Your task to perform on an android device: remove spam from my inbox in the gmail app Image 0: 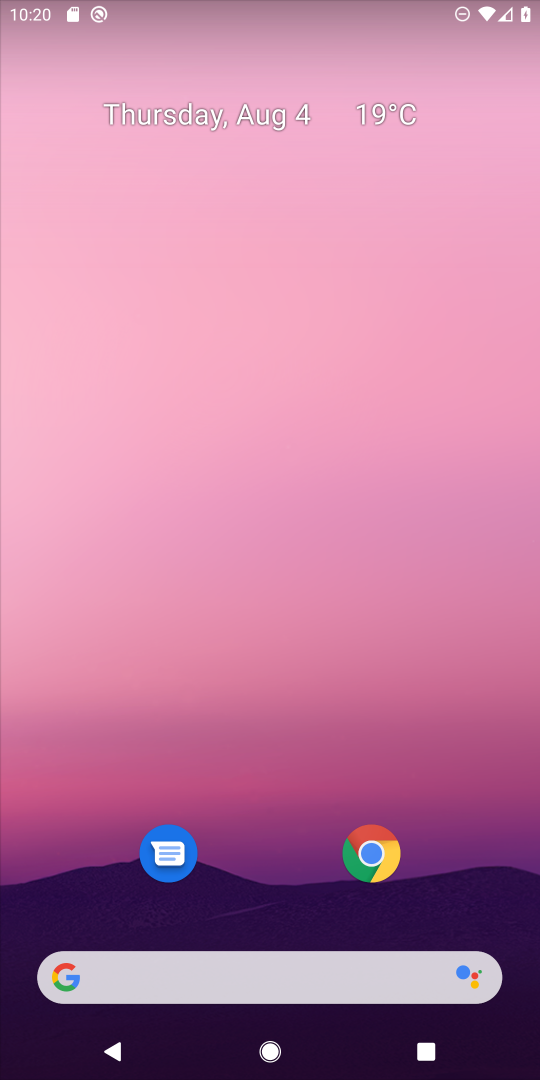
Step 0: drag from (243, 767) to (285, 0)
Your task to perform on an android device: remove spam from my inbox in the gmail app Image 1: 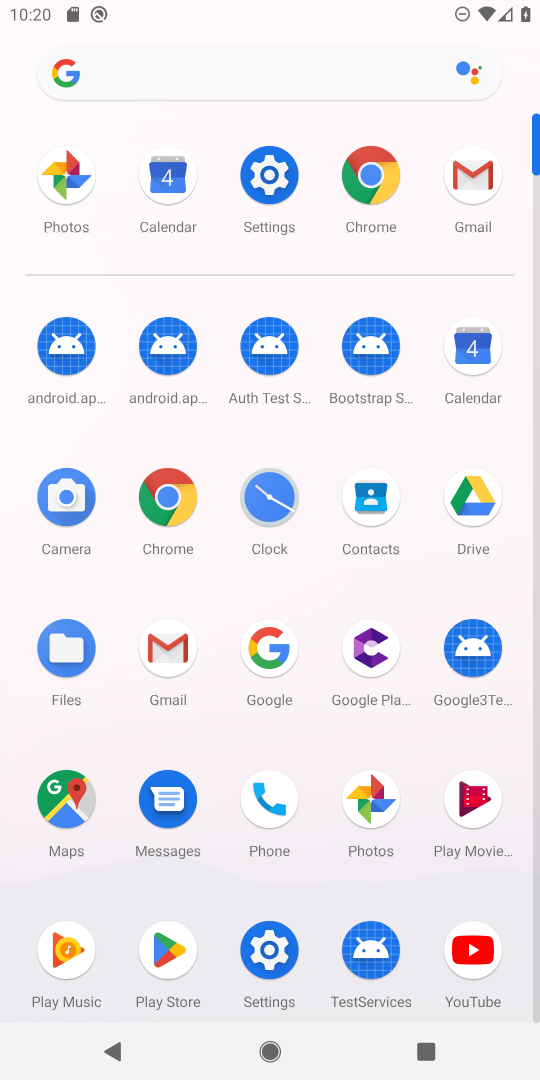
Step 1: click (164, 663)
Your task to perform on an android device: remove spam from my inbox in the gmail app Image 2: 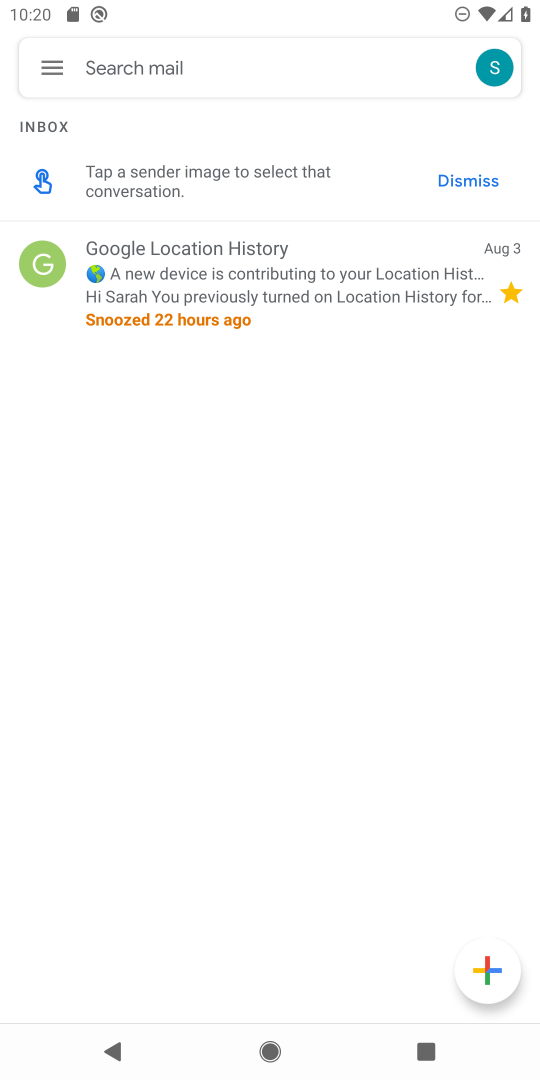
Step 2: click (39, 73)
Your task to perform on an android device: remove spam from my inbox in the gmail app Image 3: 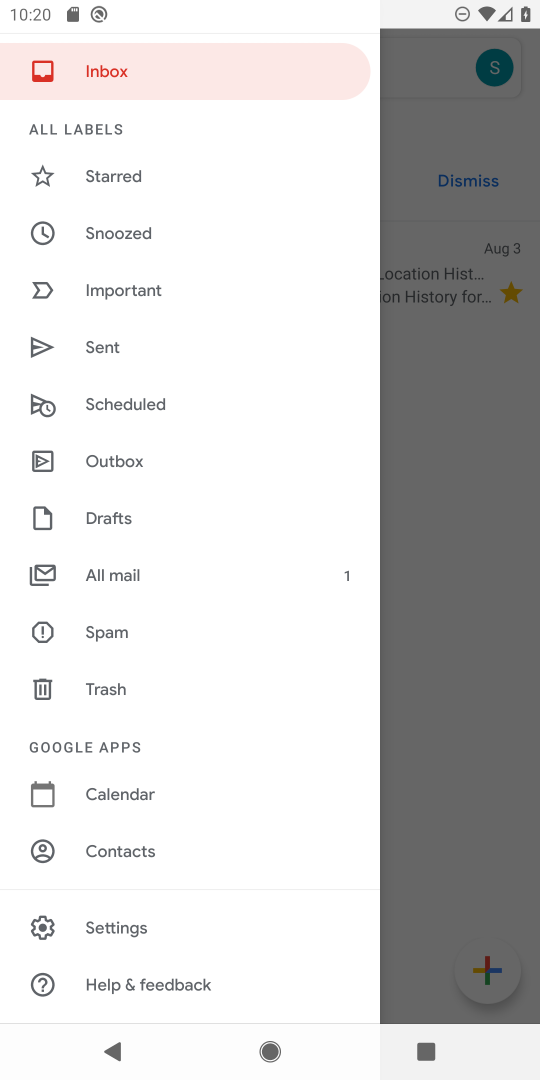
Step 3: click (129, 627)
Your task to perform on an android device: remove spam from my inbox in the gmail app Image 4: 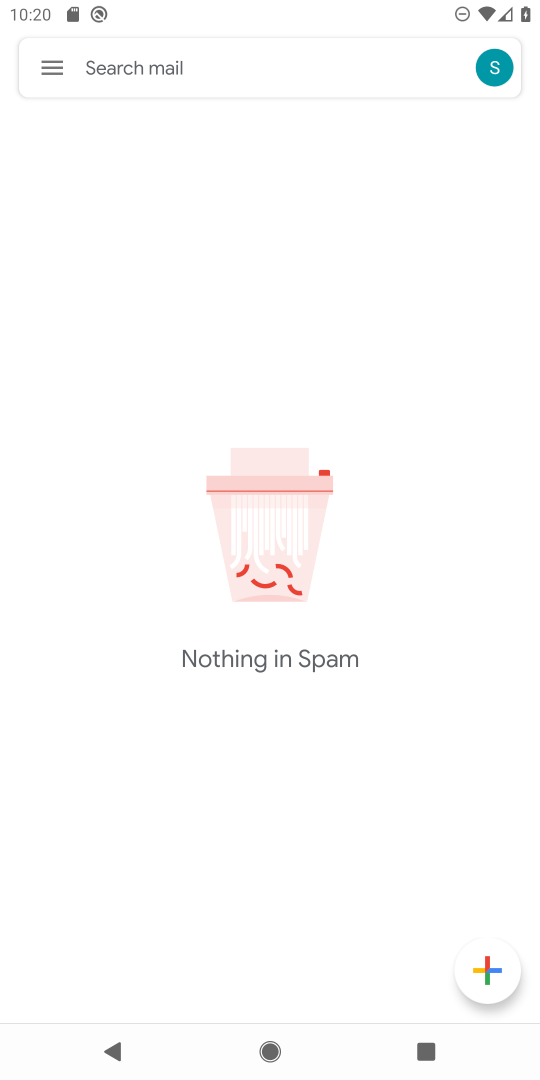
Step 4: task complete